Your task to perform on an android device: turn on airplane mode Image 0: 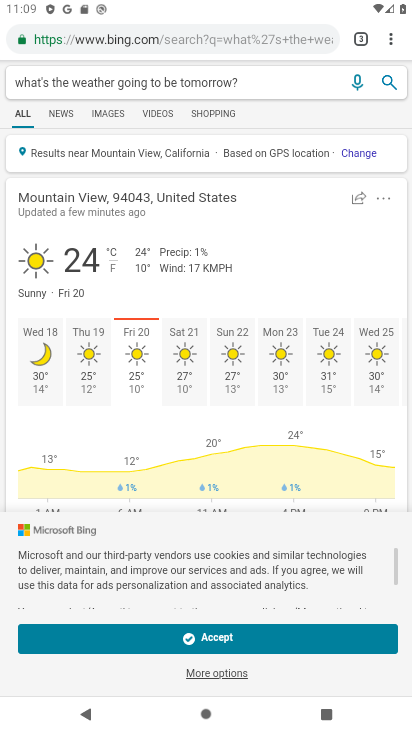
Step 0: press home button
Your task to perform on an android device: turn on airplane mode Image 1: 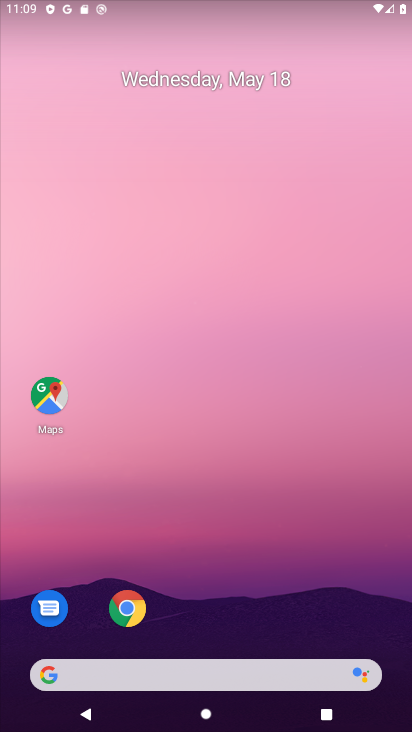
Step 1: drag from (174, 489) to (159, 202)
Your task to perform on an android device: turn on airplane mode Image 2: 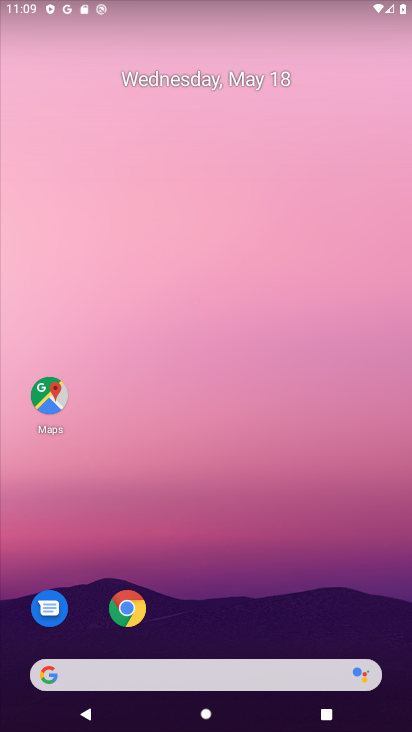
Step 2: drag from (207, 609) to (180, 139)
Your task to perform on an android device: turn on airplane mode Image 3: 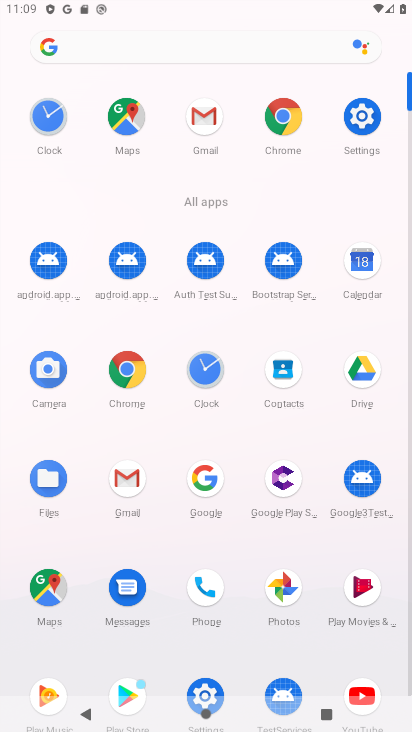
Step 3: click (362, 120)
Your task to perform on an android device: turn on airplane mode Image 4: 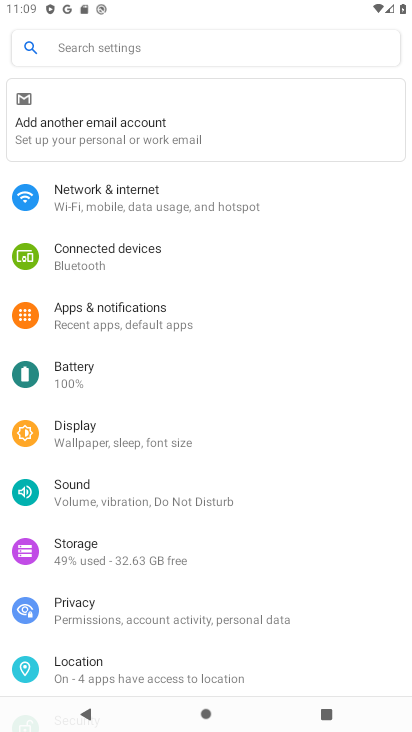
Step 4: click (208, 205)
Your task to perform on an android device: turn on airplane mode Image 5: 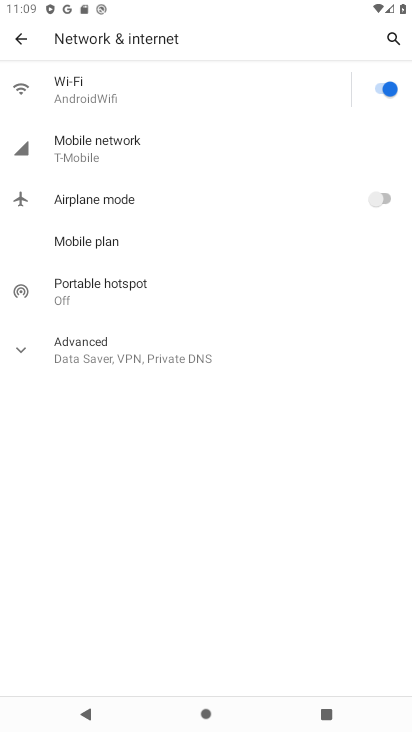
Step 5: click (382, 200)
Your task to perform on an android device: turn on airplane mode Image 6: 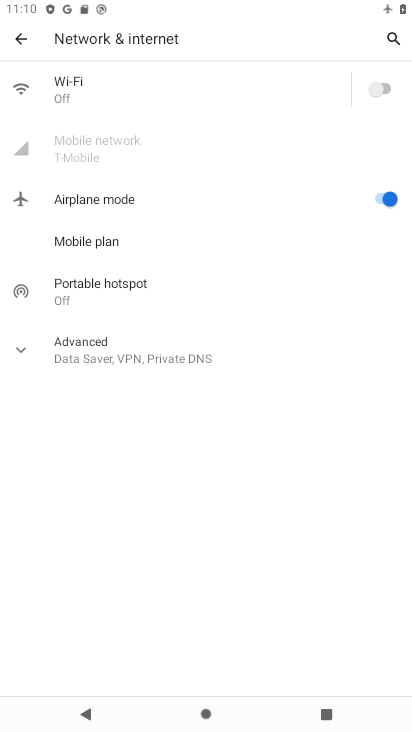
Step 6: task complete